Your task to perform on an android device: Open calendar and show me the third week of next month Image 0: 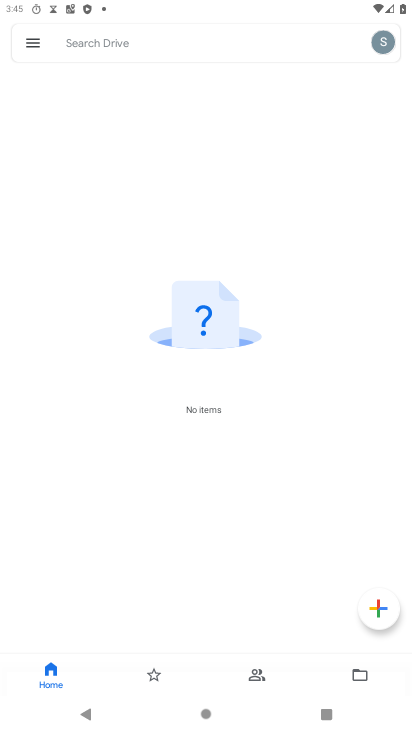
Step 0: press home button
Your task to perform on an android device: Open calendar and show me the third week of next month Image 1: 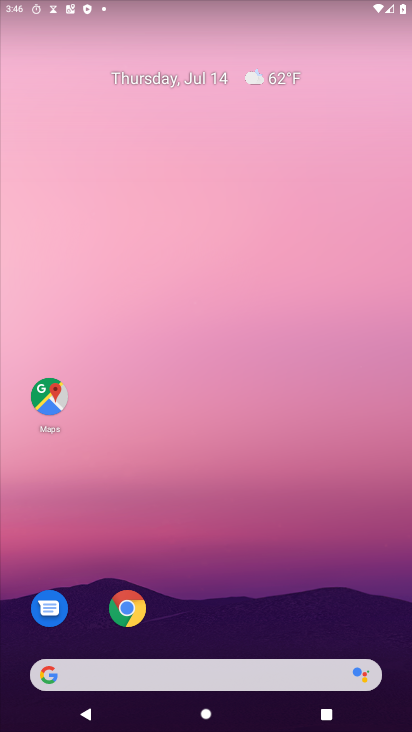
Step 1: drag from (207, 672) to (173, 227)
Your task to perform on an android device: Open calendar and show me the third week of next month Image 2: 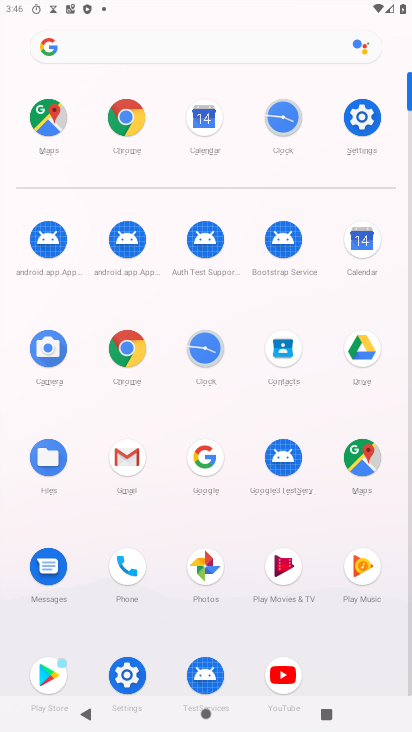
Step 2: click (349, 263)
Your task to perform on an android device: Open calendar and show me the third week of next month Image 3: 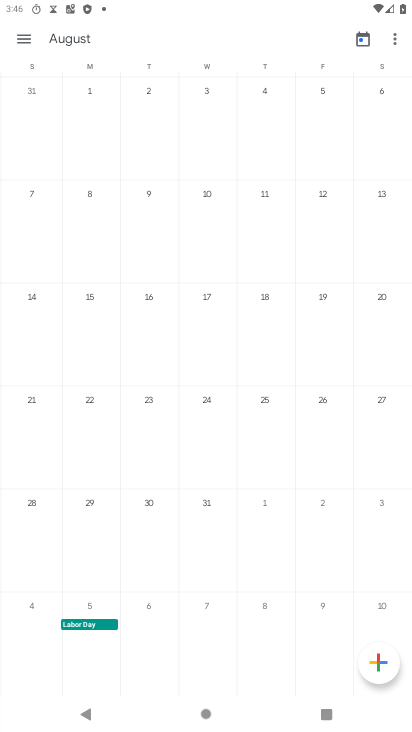
Step 3: task complete